Your task to perform on an android device: turn pop-ups off in chrome Image 0: 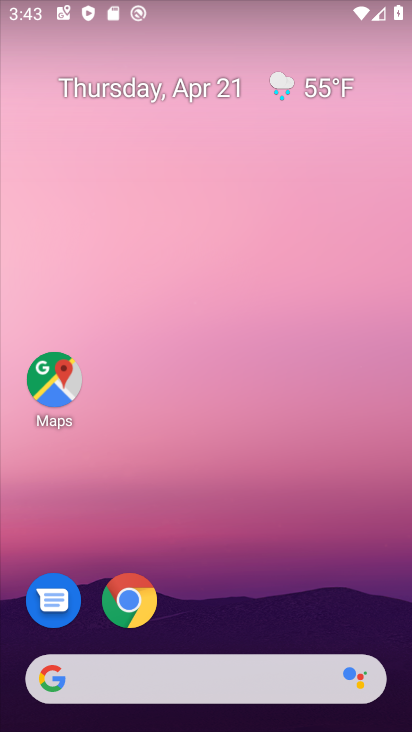
Step 0: click (138, 613)
Your task to perform on an android device: turn pop-ups off in chrome Image 1: 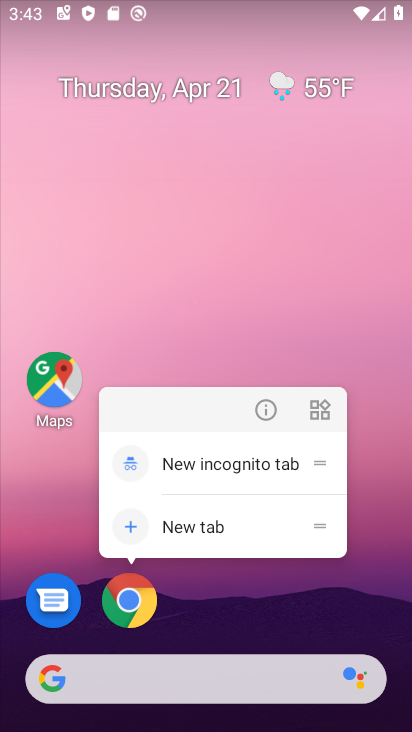
Step 1: click (145, 614)
Your task to perform on an android device: turn pop-ups off in chrome Image 2: 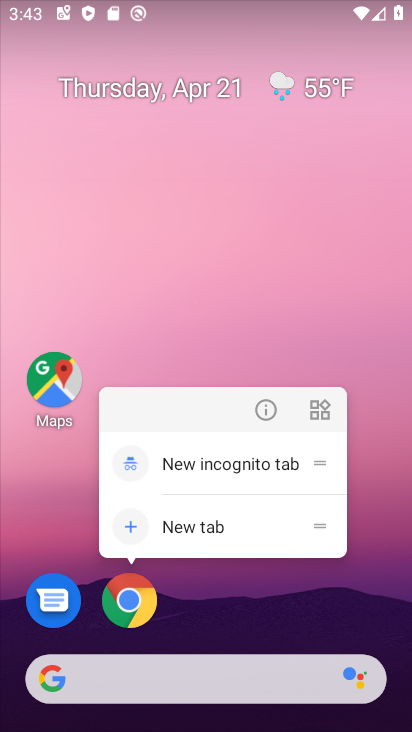
Step 2: click (142, 603)
Your task to perform on an android device: turn pop-ups off in chrome Image 3: 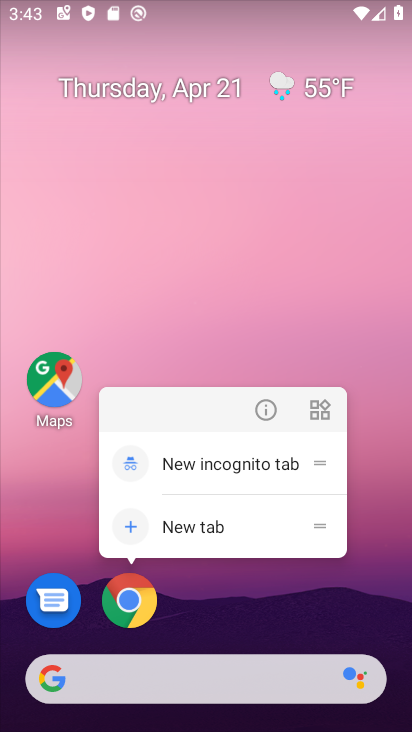
Step 3: click (115, 612)
Your task to perform on an android device: turn pop-ups off in chrome Image 4: 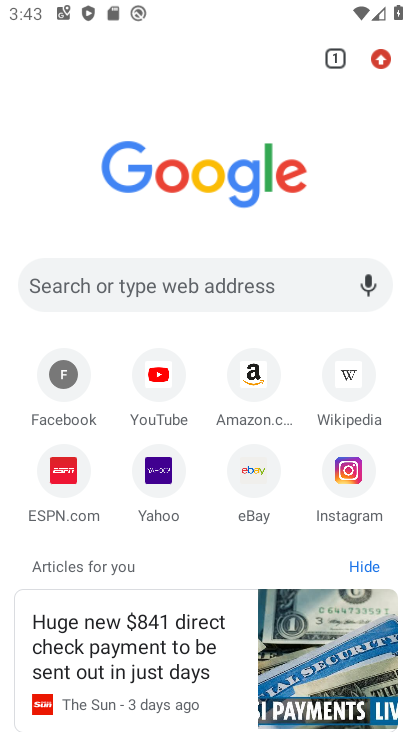
Step 4: drag from (377, 76) to (237, 537)
Your task to perform on an android device: turn pop-ups off in chrome Image 5: 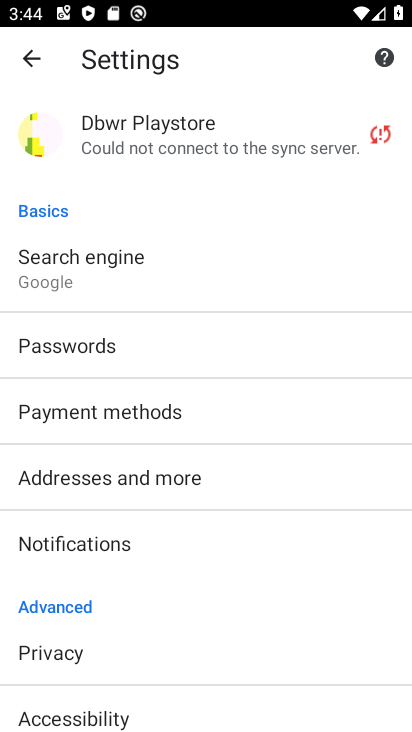
Step 5: drag from (180, 628) to (270, 350)
Your task to perform on an android device: turn pop-ups off in chrome Image 6: 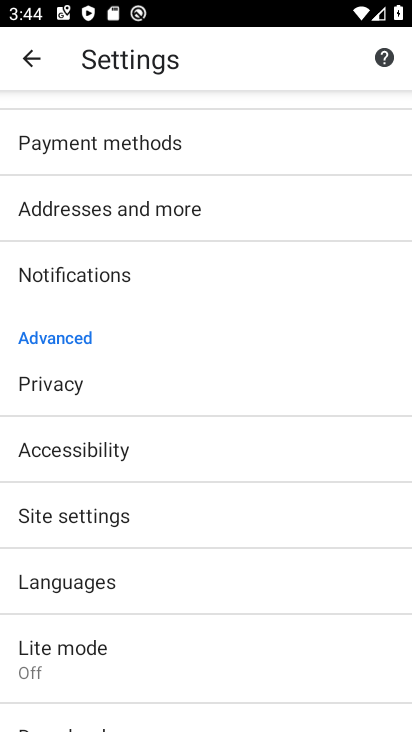
Step 6: click (138, 505)
Your task to perform on an android device: turn pop-ups off in chrome Image 7: 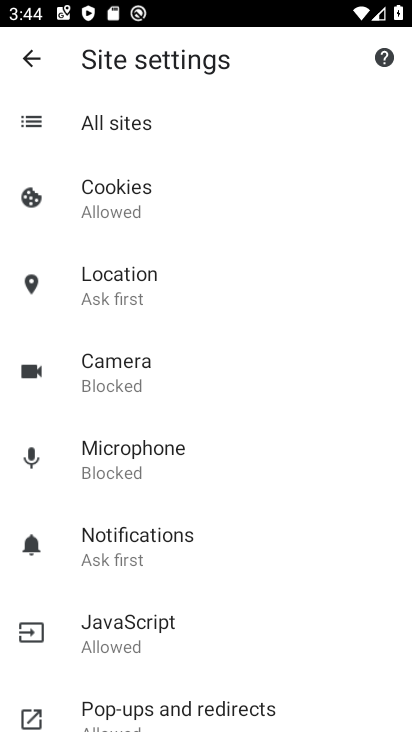
Step 7: drag from (178, 632) to (273, 443)
Your task to perform on an android device: turn pop-ups off in chrome Image 8: 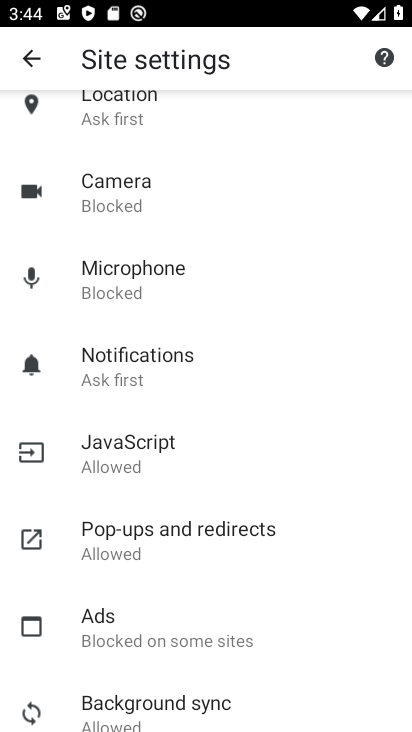
Step 8: click (249, 519)
Your task to perform on an android device: turn pop-ups off in chrome Image 9: 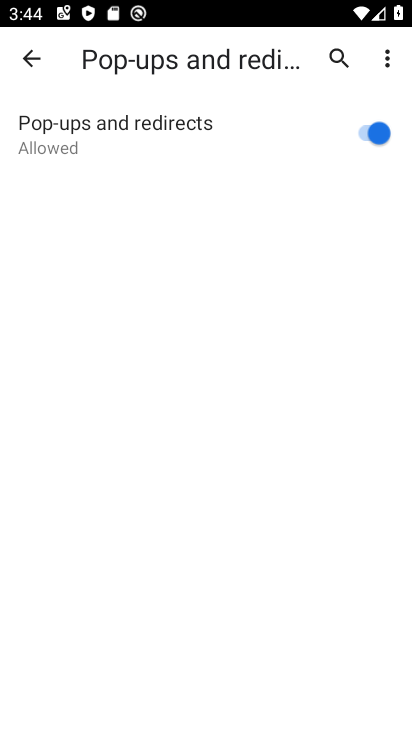
Step 9: click (359, 132)
Your task to perform on an android device: turn pop-ups off in chrome Image 10: 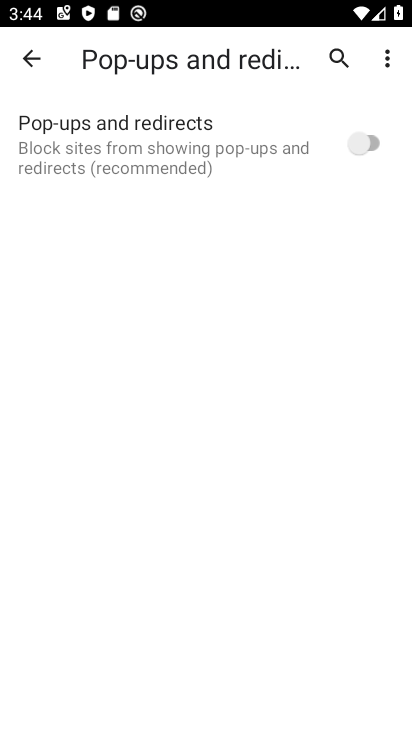
Step 10: task complete